Your task to perform on an android device: manage bookmarks in the chrome app Image 0: 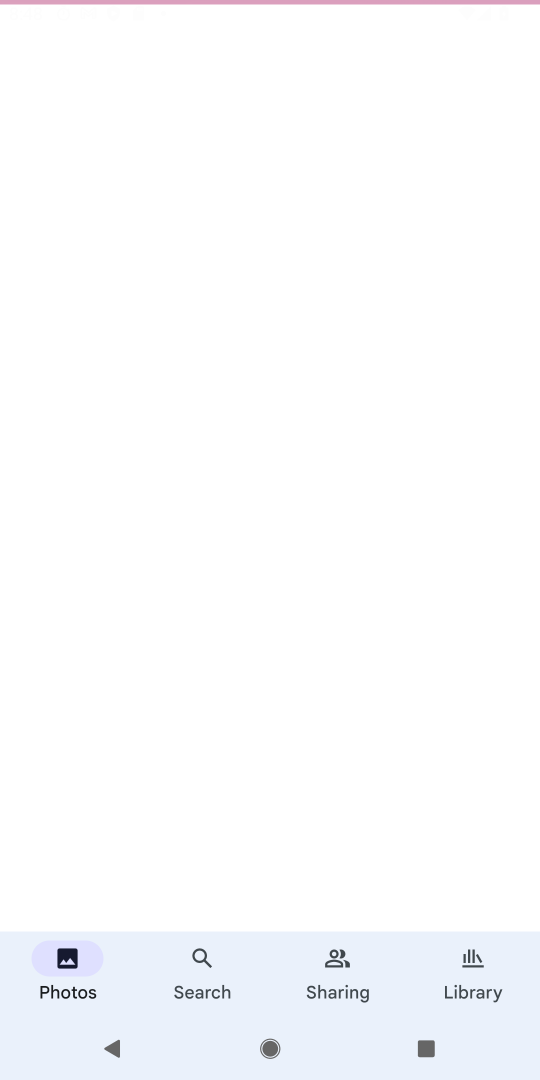
Step 0: drag from (448, 906) to (232, 43)
Your task to perform on an android device: manage bookmarks in the chrome app Image 1: 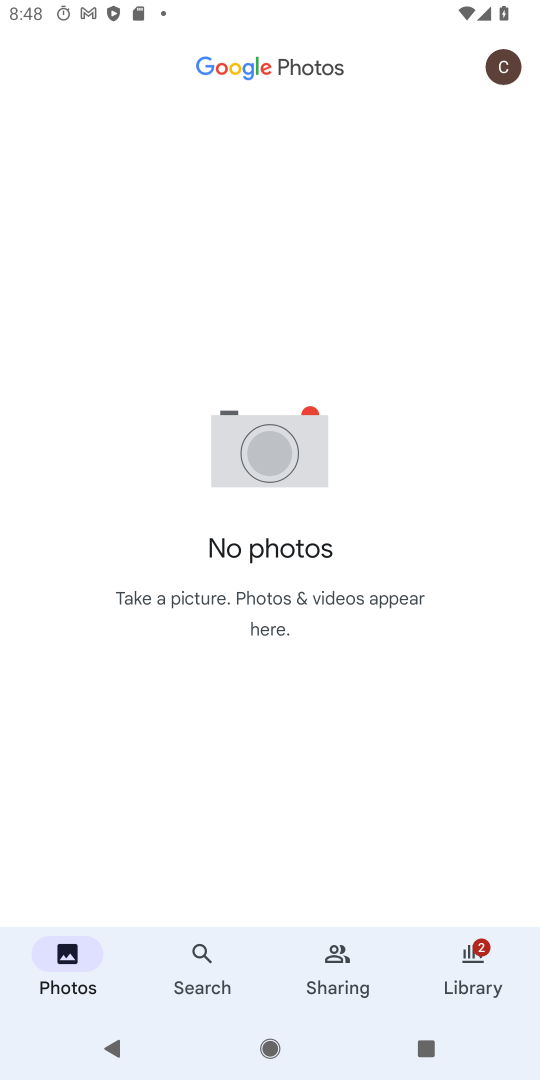
Step 1: press home button
Your task to perform on an android device: manage bookmarks in the chrome app Image 2: 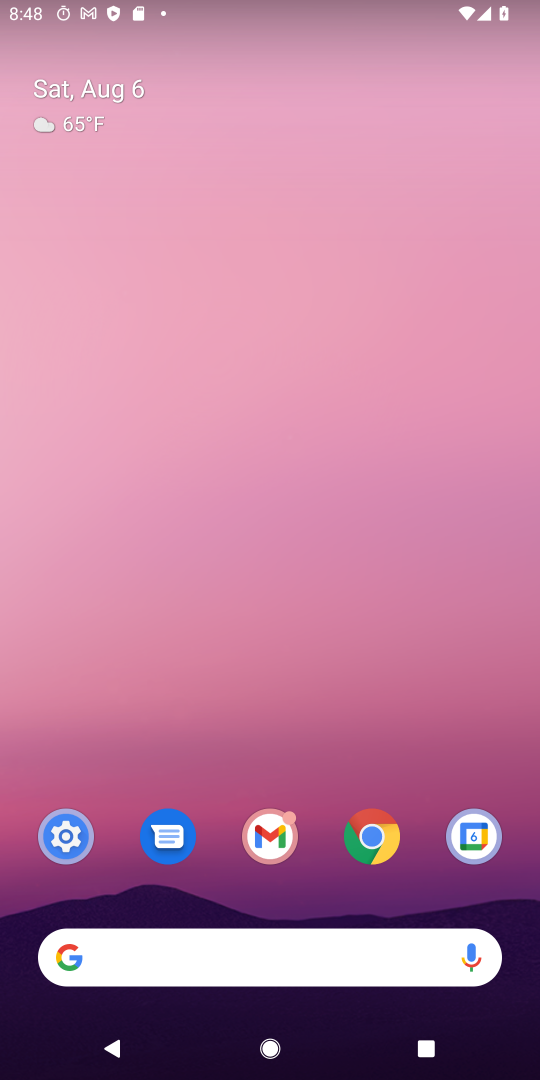
Step 2: drag from (507, 922) to (261, 8)
Your task to perform on an android device: manage bookmarks in the chrome app Image 3: 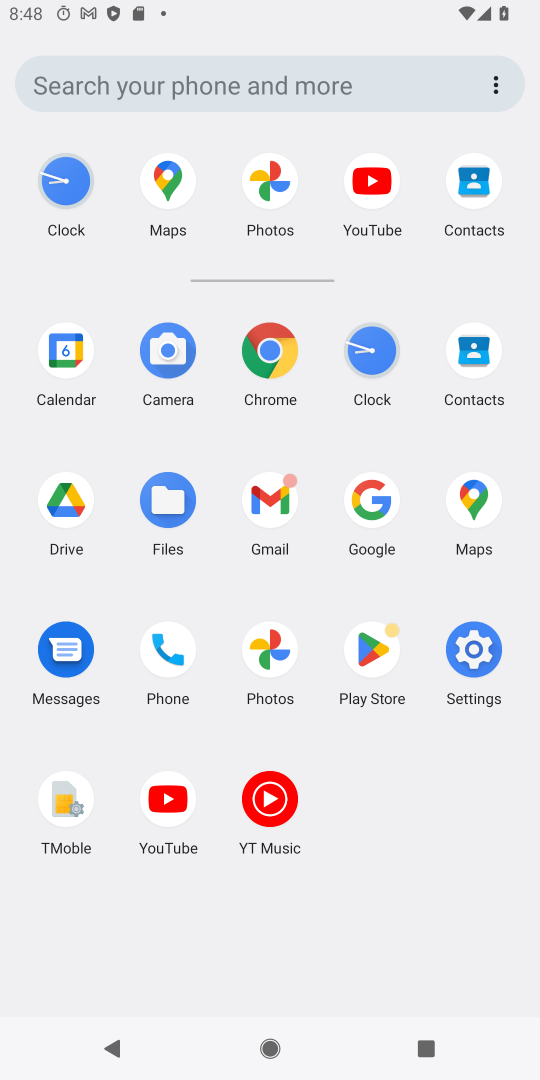
Step 3: click (269, 372)
Your task to perform on an android device: manage bookmarks in the chrome app Image 4: 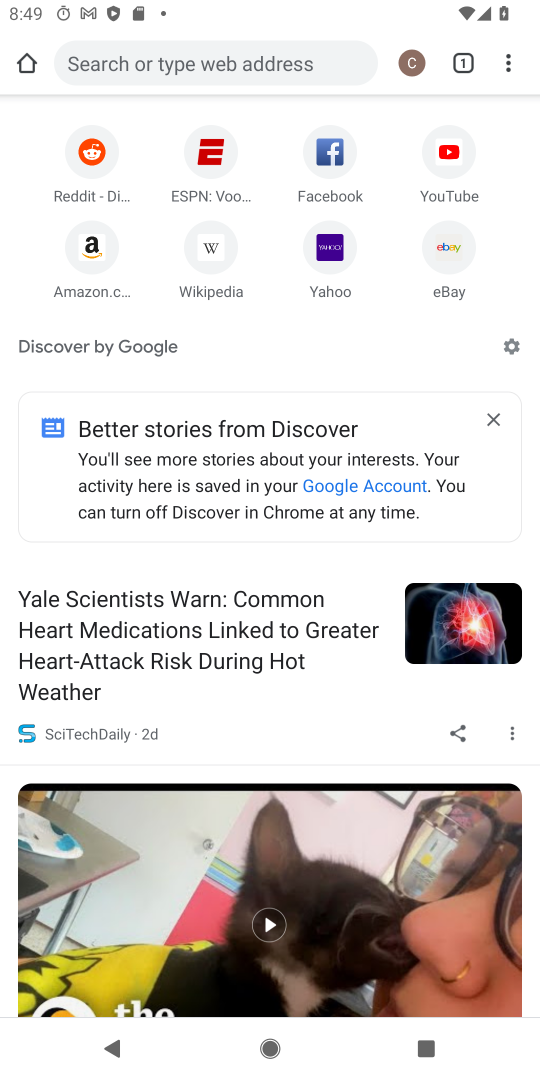
Step 4: task complete